Your task to perform on an android device: toggle data saver in the chrome app Image 0: 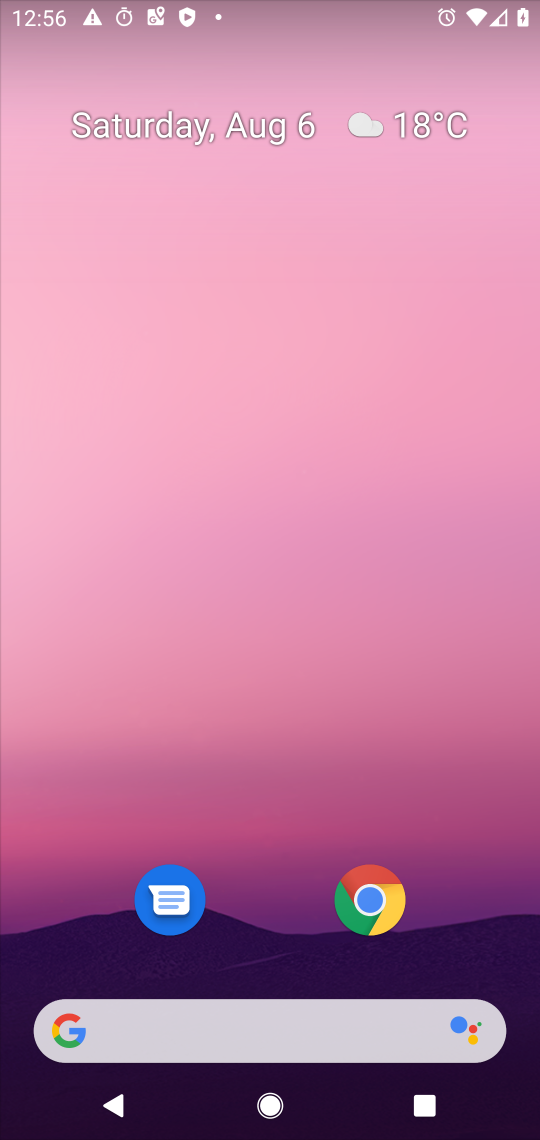
Step 0: click (400, 908)
Your task to perform on an android device: toggle data saver in the chrome app Image 1: 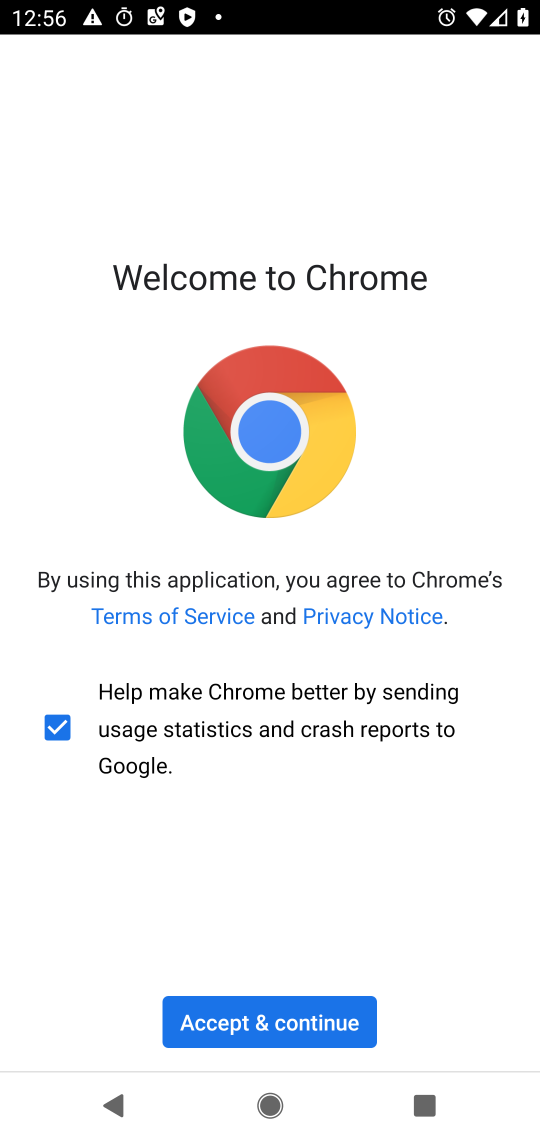
Step 1: click (313, 1007)
Your task to perform on an android device: toggle data saver in the chrome app Image 2: 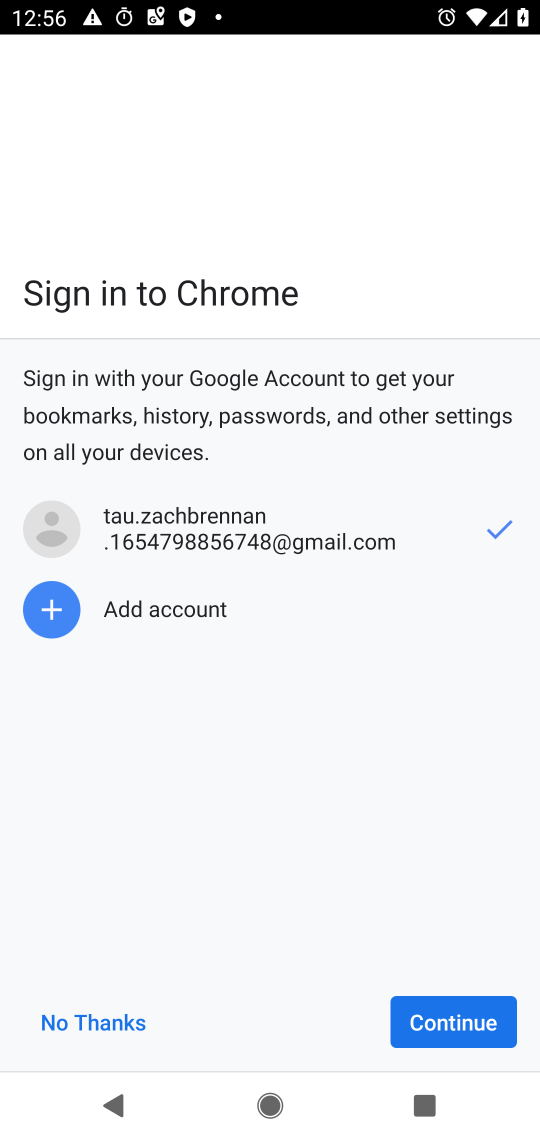
Step 2: click (435, 1007)
Your task to perform on an android device: toggle data saver in the chrome app Image 3: 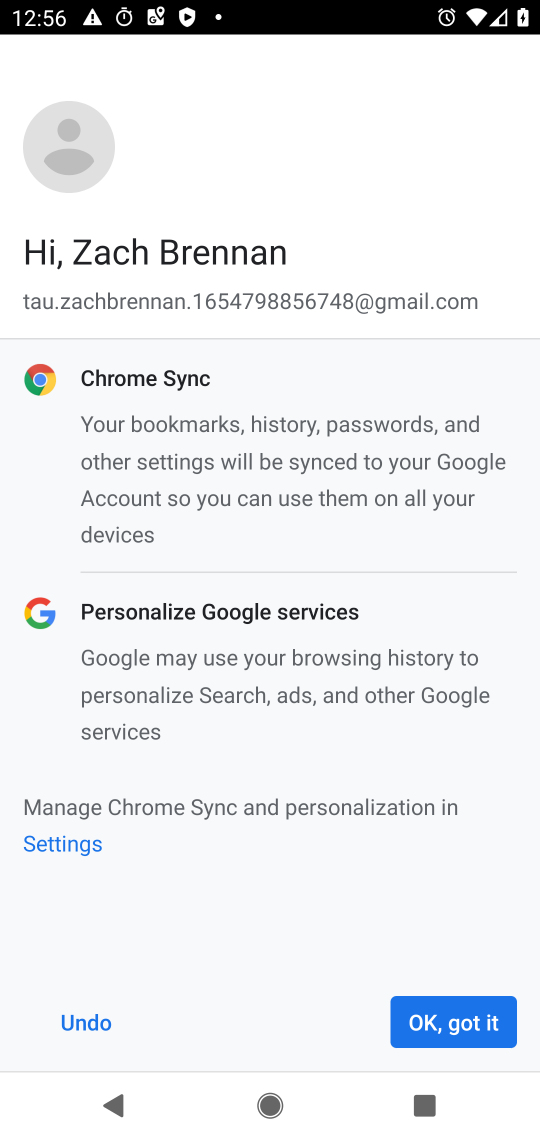
Step 3: click (435, 1007)
Your task to perform on an android device: toggle data saver in the chrome app Image 4: 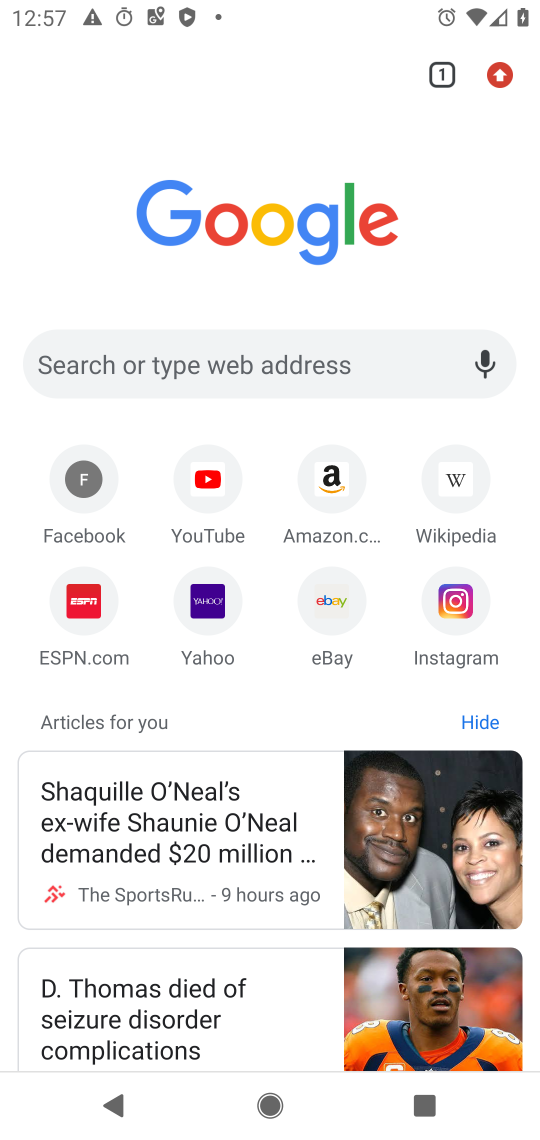
Step 4: click (493, 64)
Your task to perform on an android device: toggle data saver in the chrome app Image 5: 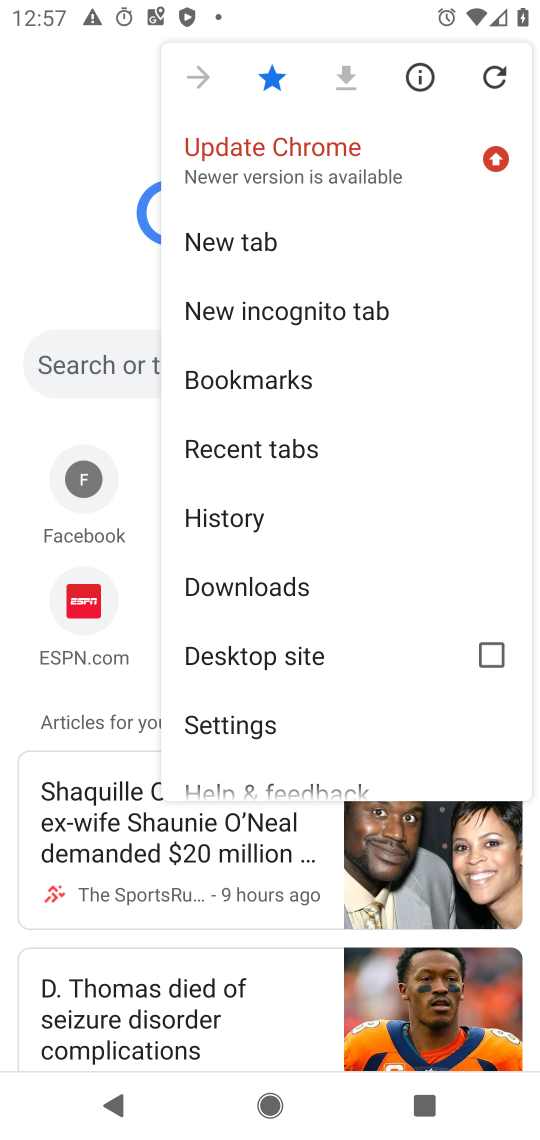
Step 5: click (253, 710)
Your task to perform on an android device: toggle data saver in the chrome app Image 6: 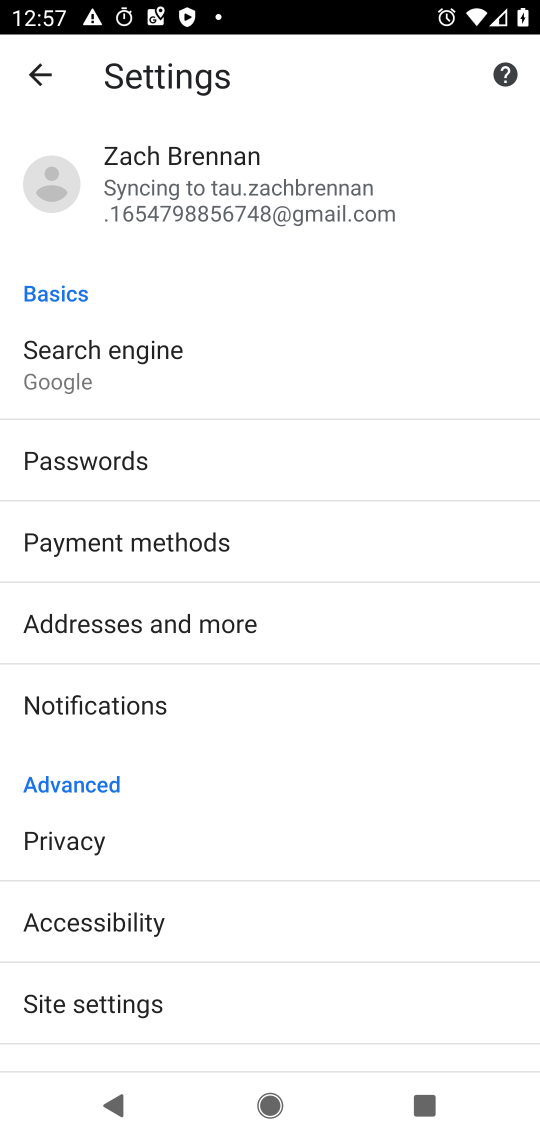
Step 6: drag from (346, 887) to (307, 355)
Your task to perform on an android device: toggle data saver in the chrome app Image 7: 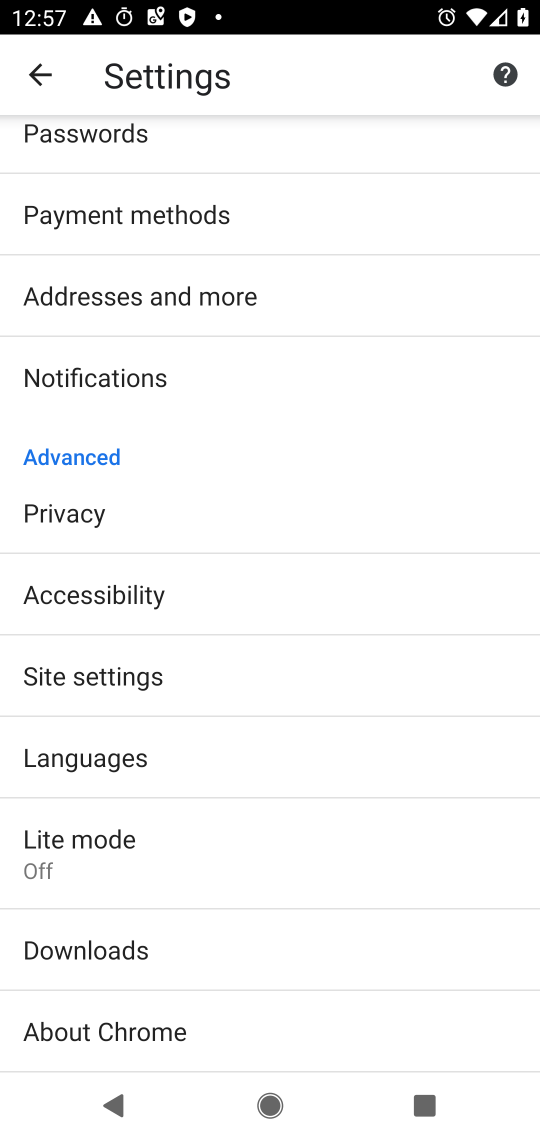
Step 7: click (176, 856)
Your task to perform on an android device: toggle data saver in the chrome app Image 8: 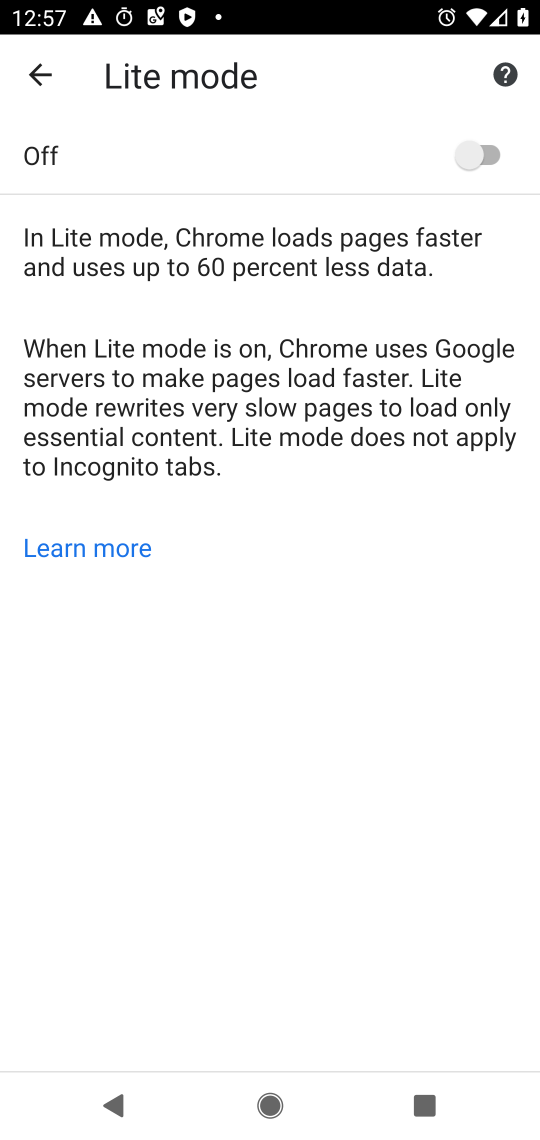
Step 8: click (457, 151)
Your task to perform on an android device: toggle data saver in the chrome app Image 9: 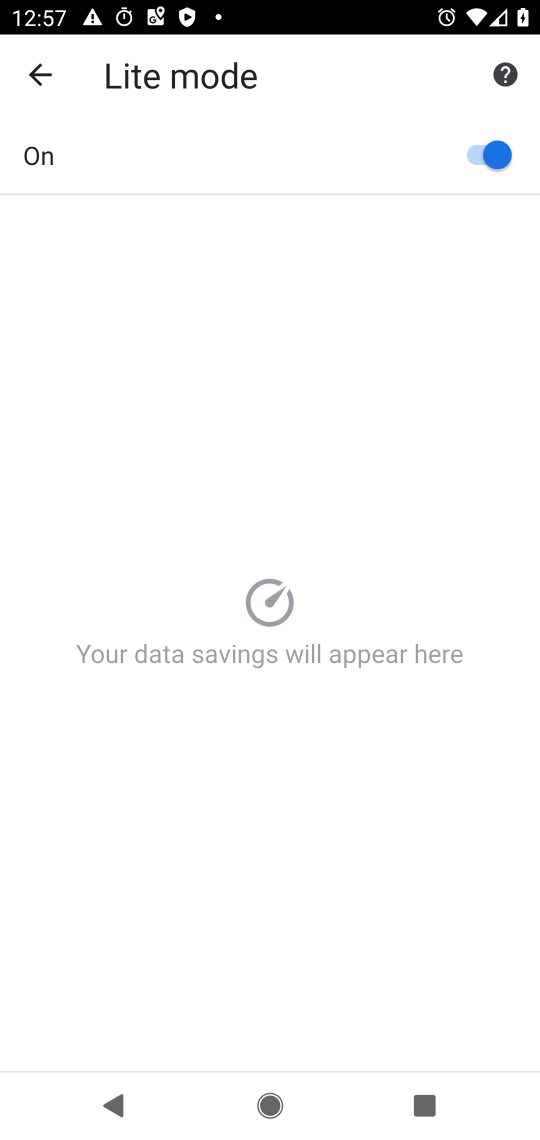
Step 9: task complete